Your task to perform on an android device: What's the weather? Image 0: 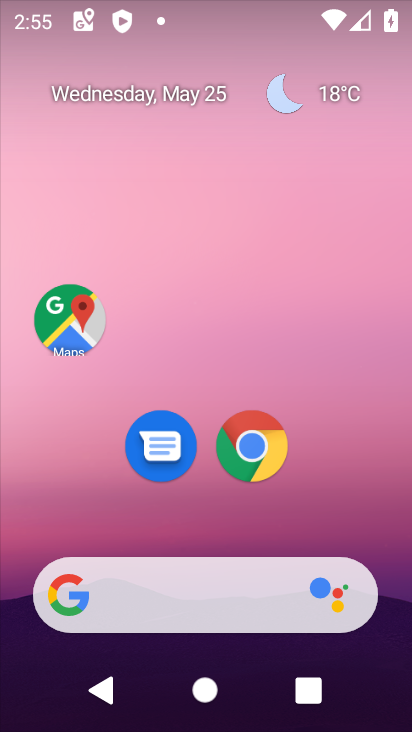
Step 0: click (328, 90)
Your task to perform on an android device: What's the weather? Image 1: 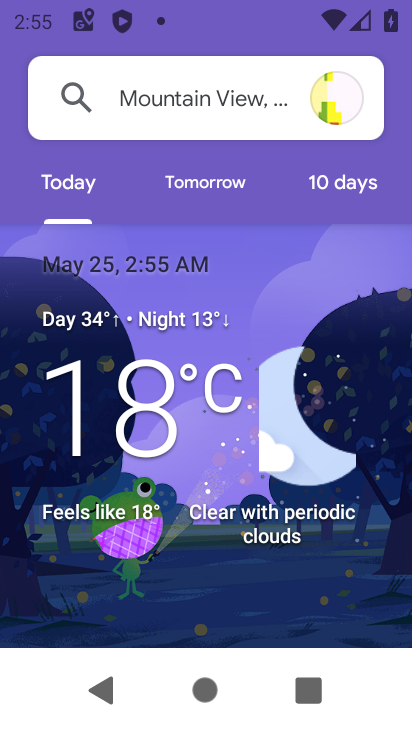
Step 1: task complete